Your task to perform on an android device: Open Wikipedia Image 0: 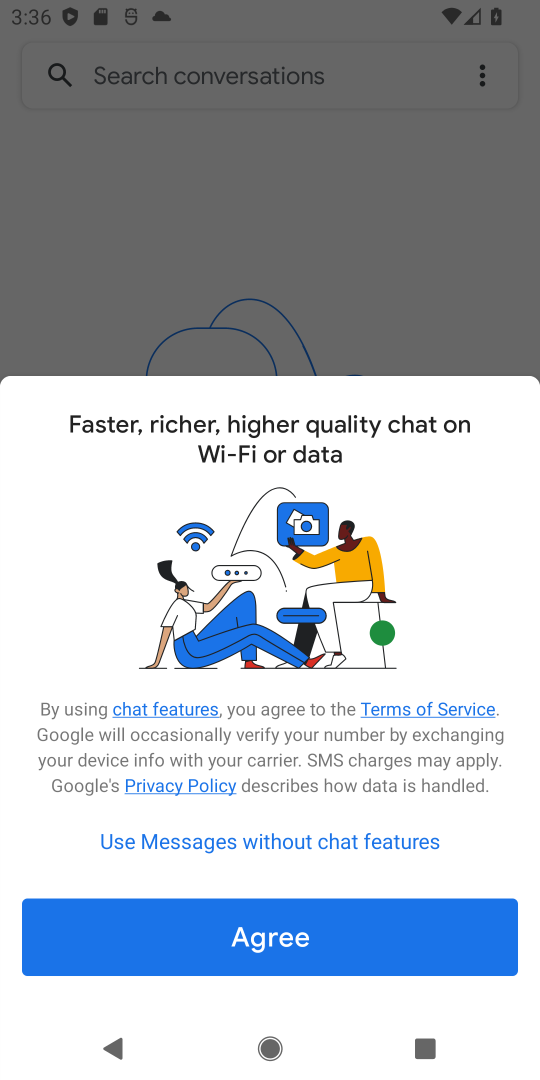
Step 0: press home button
Your task to perform on an android device: Open Wikipedia Image 1: 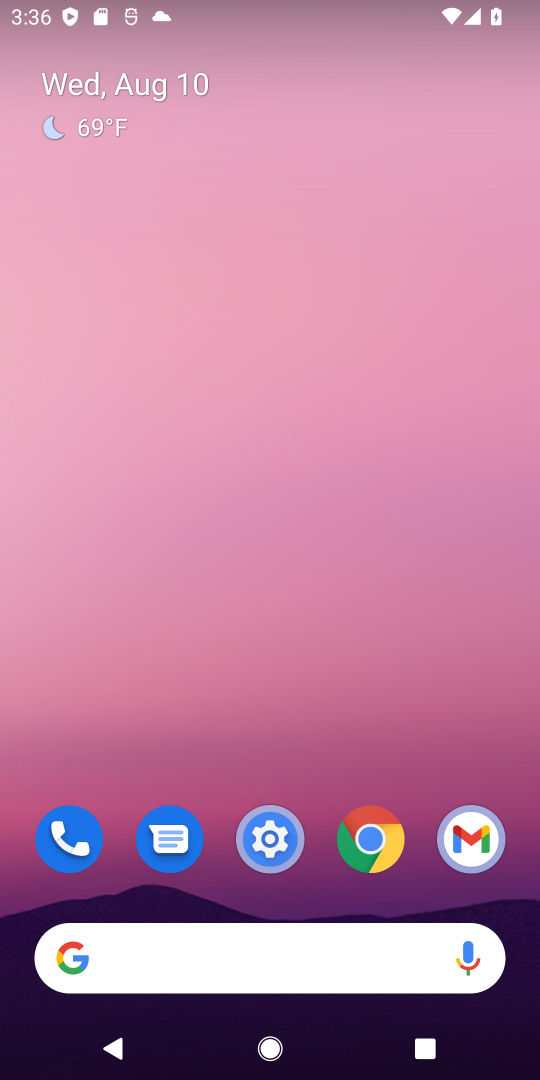
Step 1: click (374, 837)
Your task to perform on an android device: Open Wikipedia Image 2: 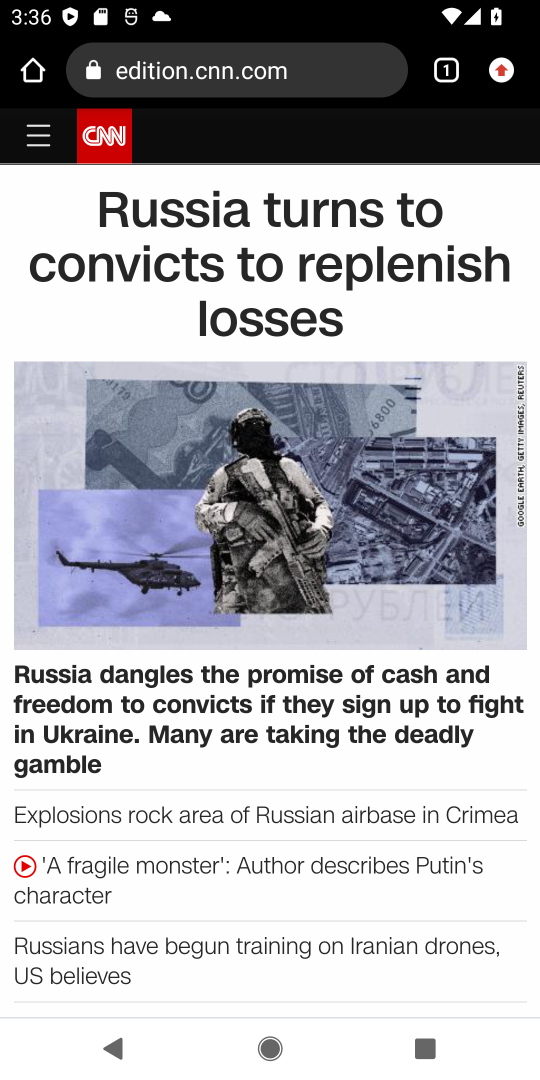
Step 2: click (504, 73)
Your task to perform on an android device: Open Wikipedia Image 3: 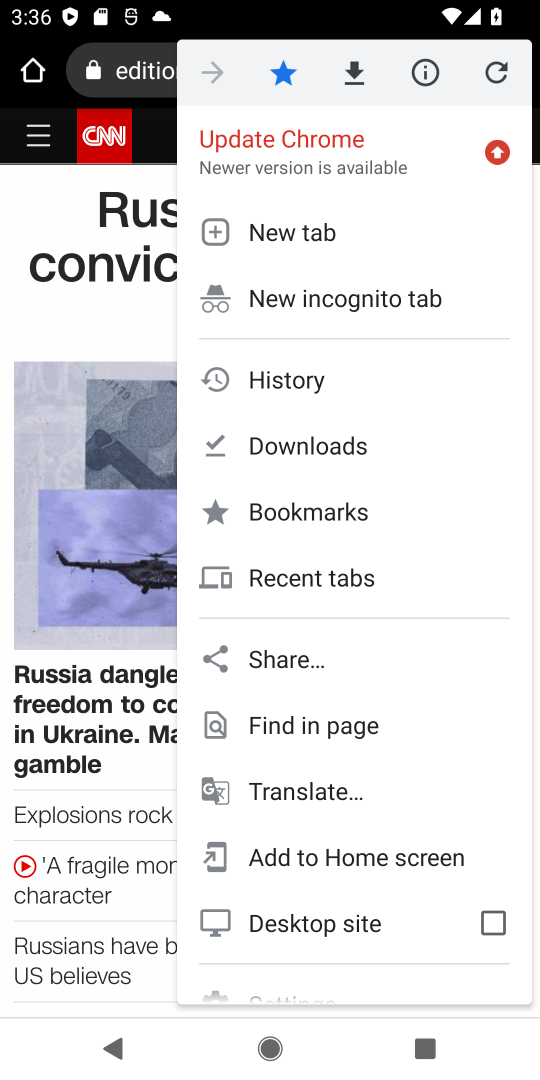
Step 3: click (321, 227)
Your task to perform on an android device: Open Wikipedia Image 4: 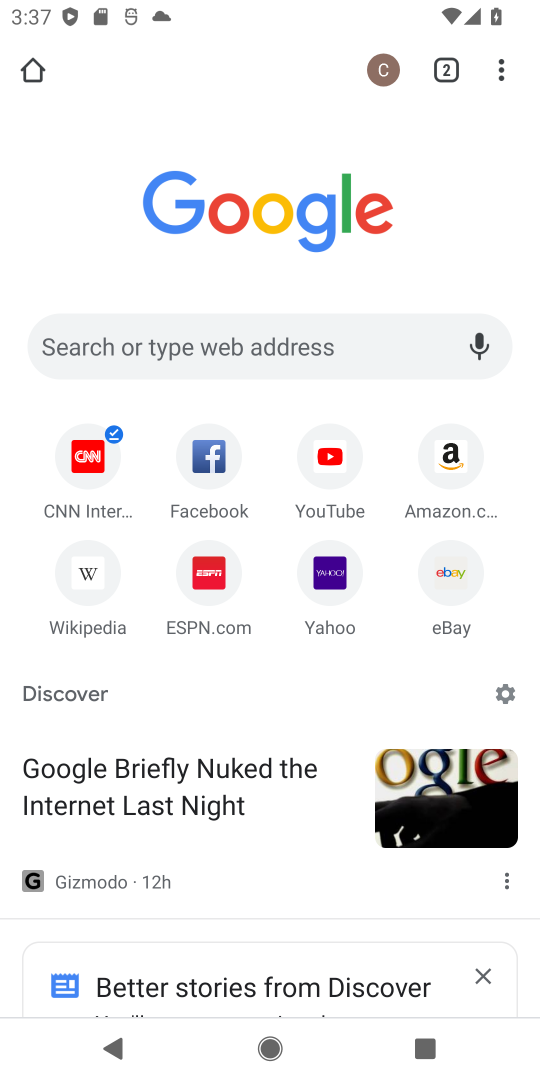
Step 4: click (94, 570)
Your task to perform on an android device: Open Wikipedia Image 5: 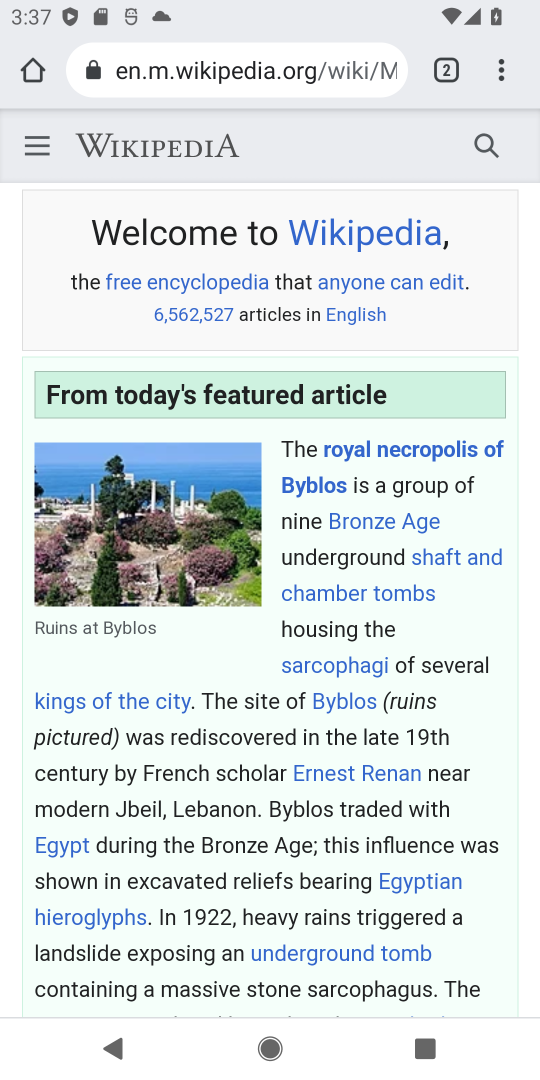
Step 5: task complete